Your task to perform on an android device: Open calendar and show me the first week of next month Image 0: 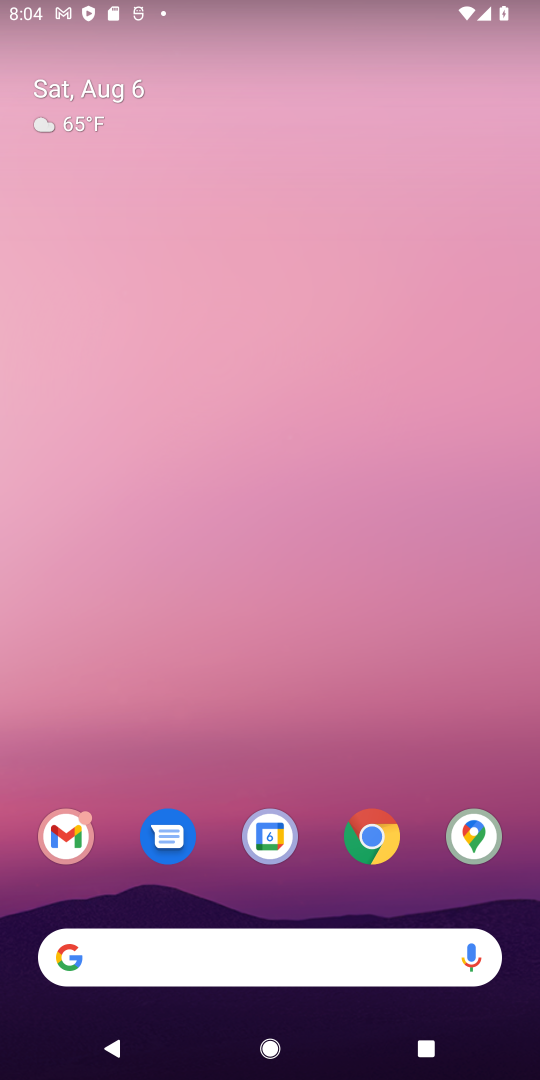
Step 0: drag from (289, 156) to (237, 6)
Your task to perform on an android device: Open calendar and show me the first week of next month Image 1: 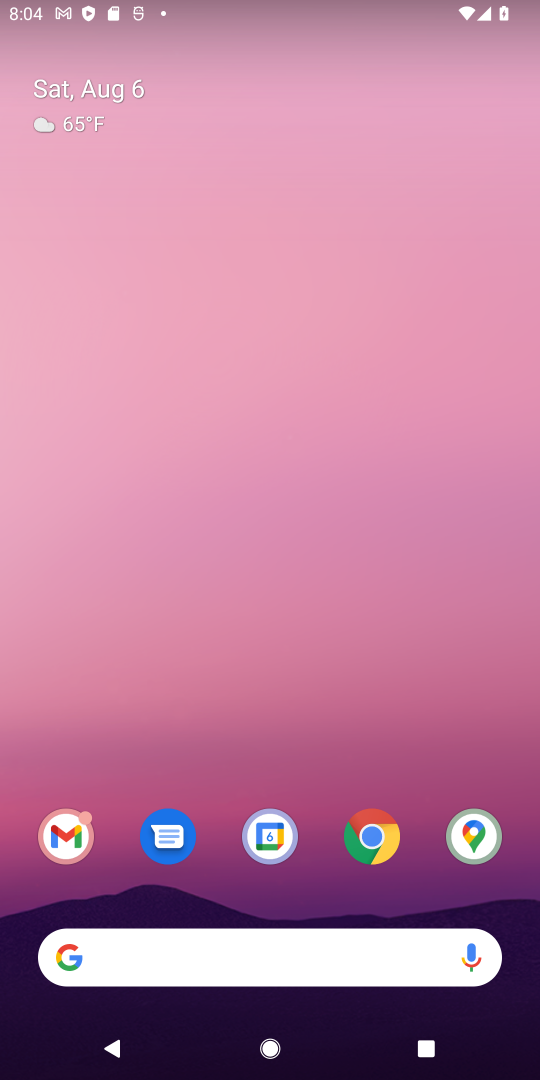
Step 1: drag from (444, 873) to (289, 2)
Your task to perform on an android device: Open calendar and show me the first week of next month Image 2: 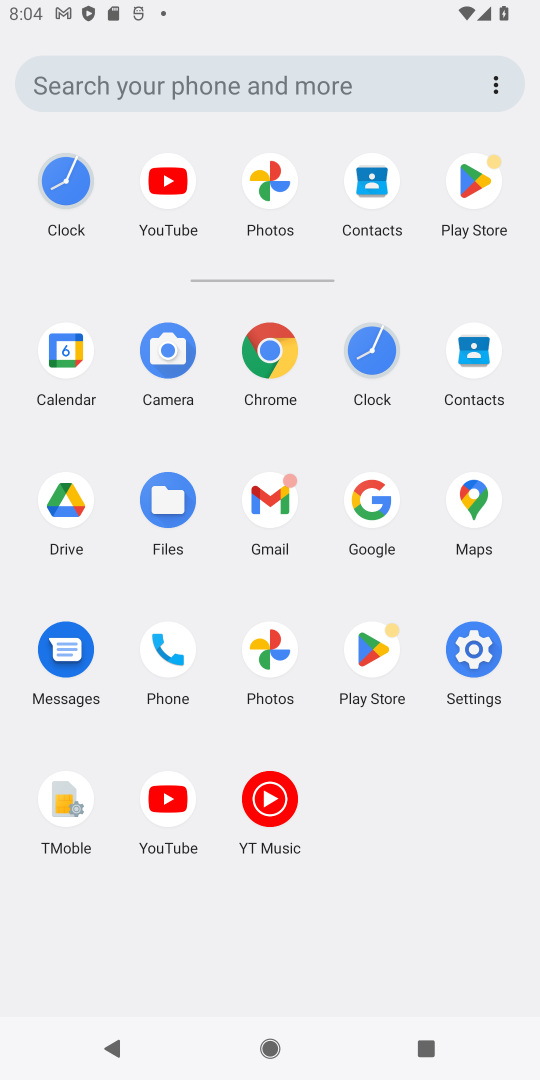
Step 2: click (65, 353)
Your task to perform on an android device: Open calendar and show me the first week of next month Image 3: 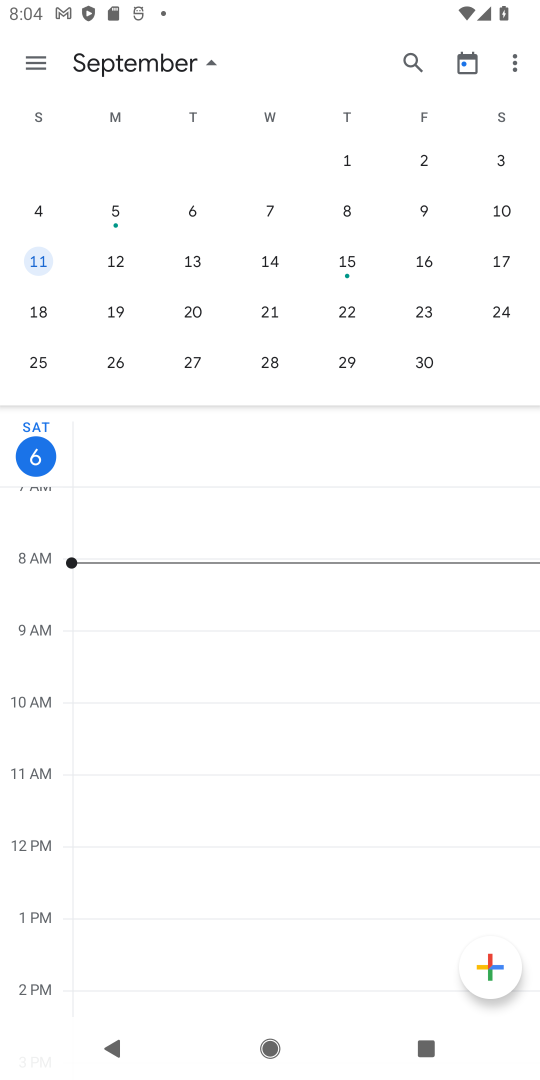
Step 3: click (132, 48)
Your task to perform on an android device: Open calendar and show me the first week of next month Image 4: 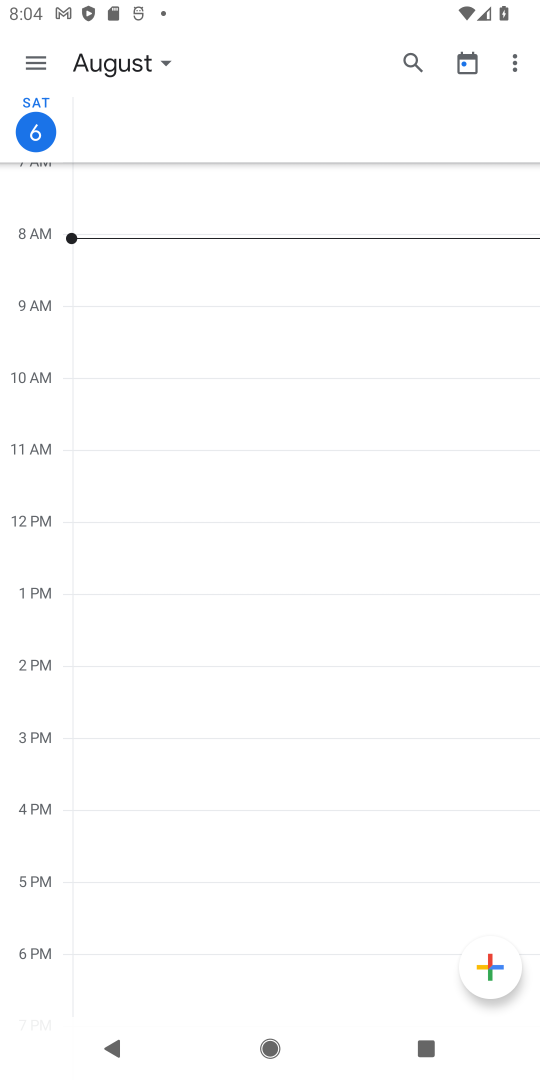
Step 4: click (126, 72)
Your task to perform on an android device: Open calendar and show me the first week of next month Image 5: 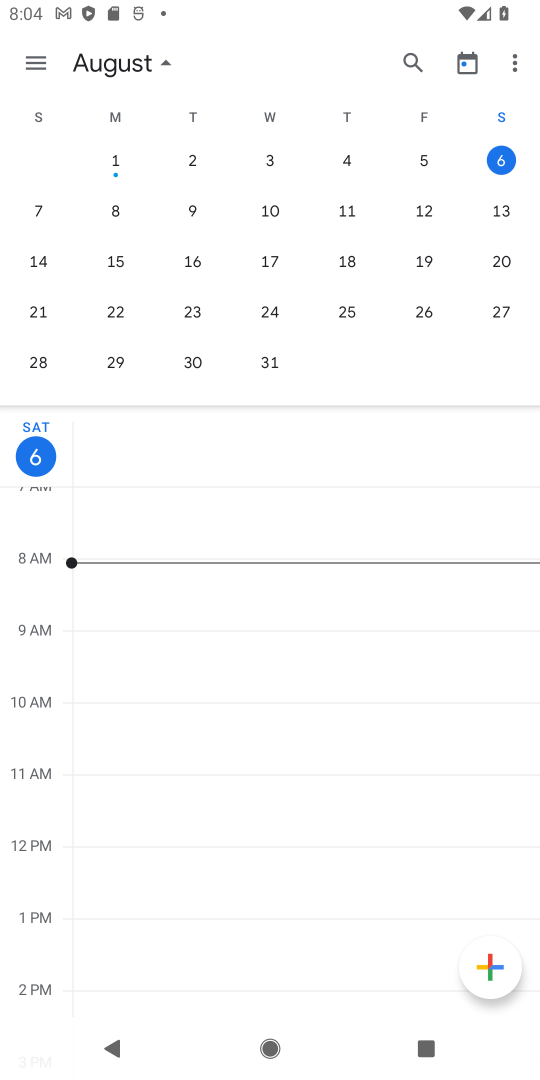
Step 5: drag from (494, 239) to (9, 265)
Your task to perform on an android device: Open calendar and show me the first week of next month Image 6: 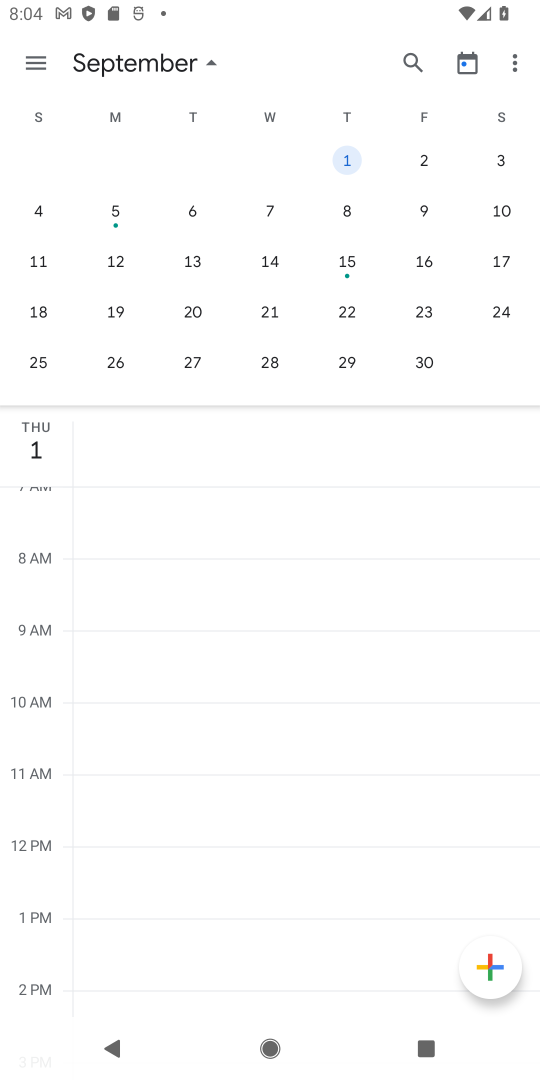
Step 6: click (39, 210)
Your task to perform on an android device: Open calendar and show me the first week of next month Image 7: 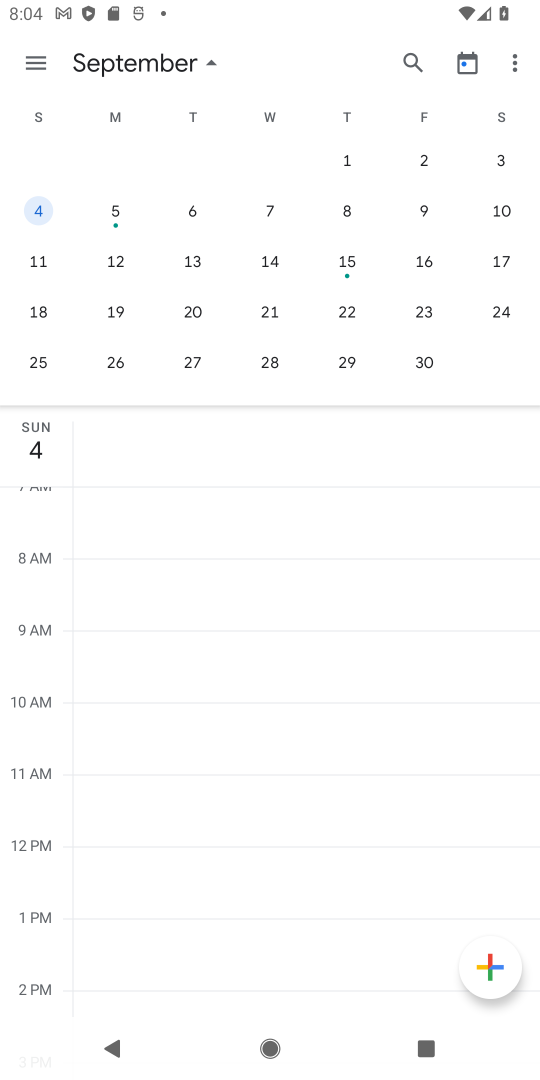
Step 7: task complete